Your task to perform on an android device: Go to privacy settings Image 0: 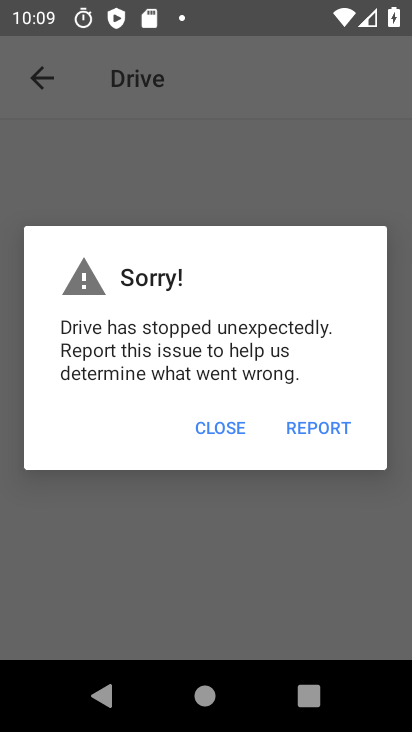
Step 0: press home button
Your task to perform on an android device: Go to privacy settings Image 1: 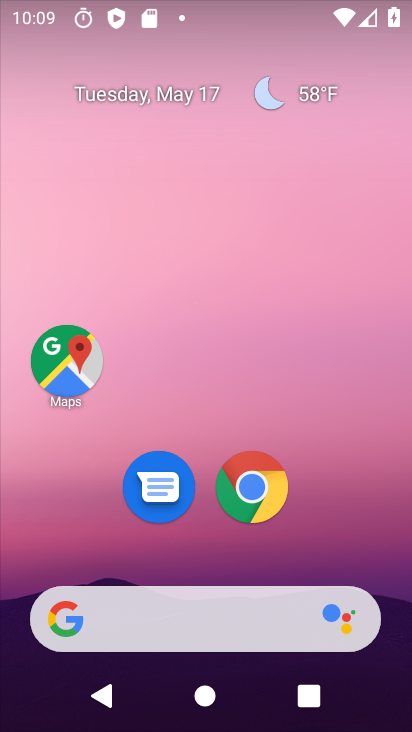
Step 1: drag from (227, 726) to (227, 140)
Your task to perform on an android device: Go to privacy settings Image 2: 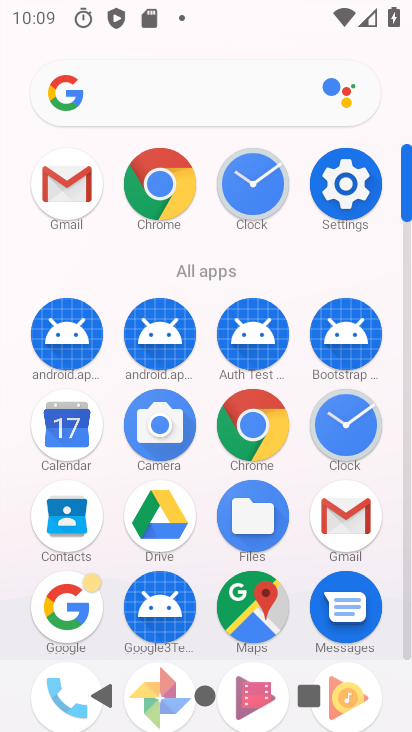
Step 2: click (338, 185)
Your task to perform on an android device: Go to privacy settings Image 3: 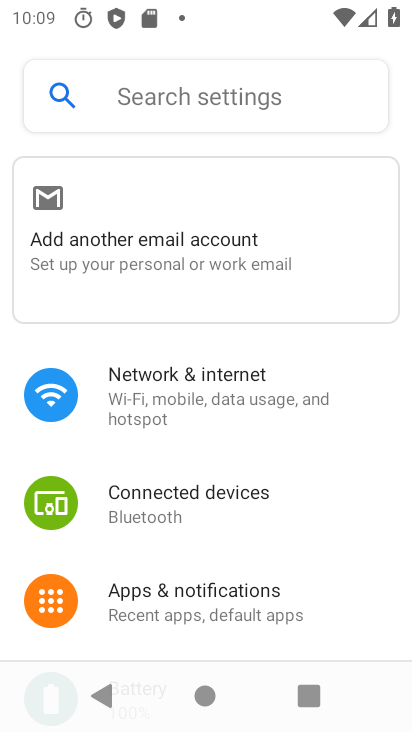
Step 3: drag from (211, 599) to (212, 219)
Your task to perform on an android device: Go to privacy settings Image 4: 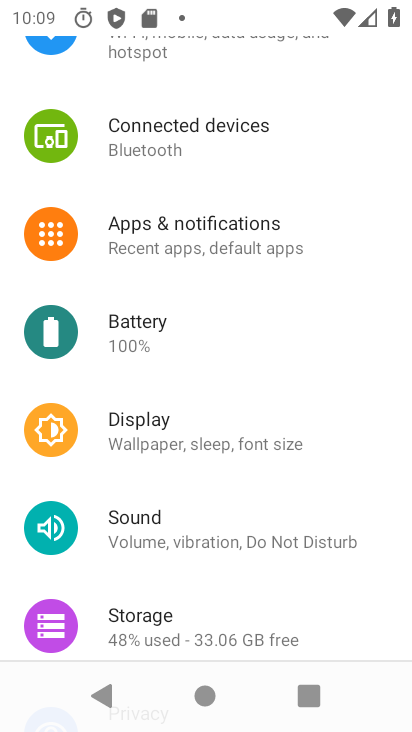
Step 4: drag from (186, 602) to (188, 240)
Your task to perform on an android device: Go to privacy settings Image 5: 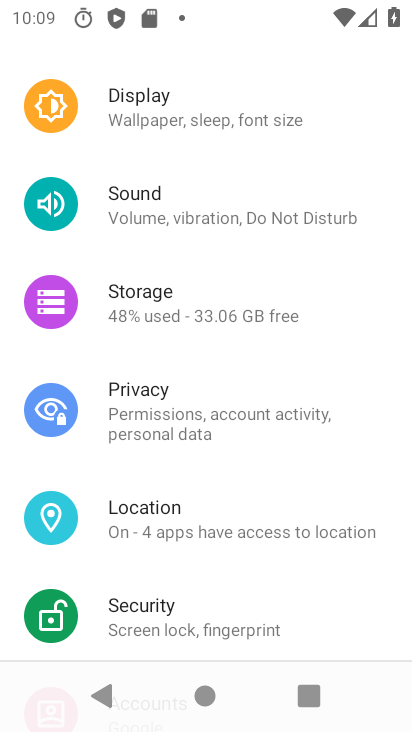
Step 5: click (134, 409)
Your task to perform on an android device: Go to privacy settings Image 6: 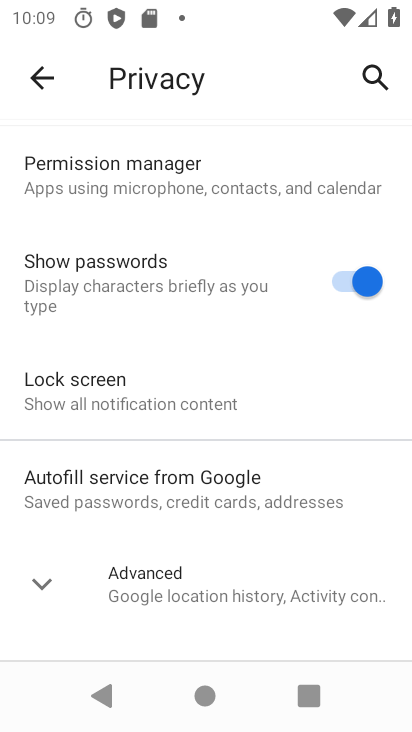
Step 6: task complete